Your task to perform on an android device: turn notification dots off Image 0: 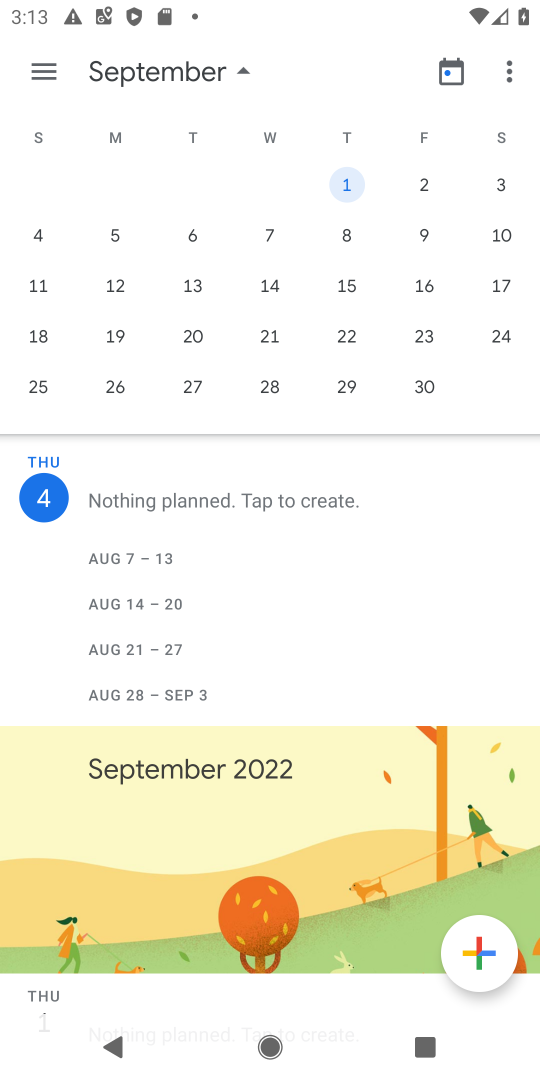
Step 0: press back button
Your task to perform on an android device: turn notification dots off Image 1: 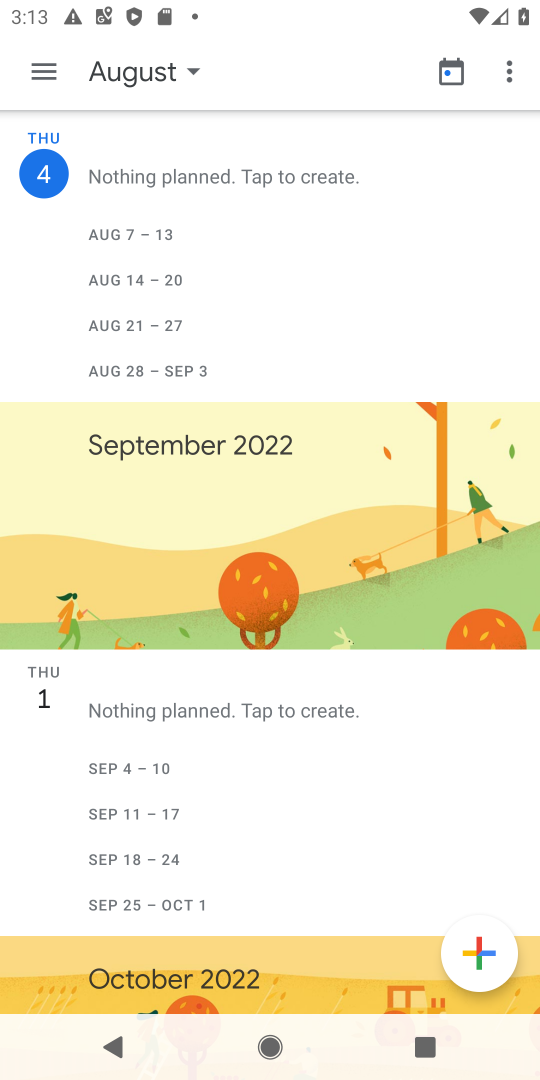
Step 1: press back button
Your task to perform on an android device: turn notification dots off Image 2: 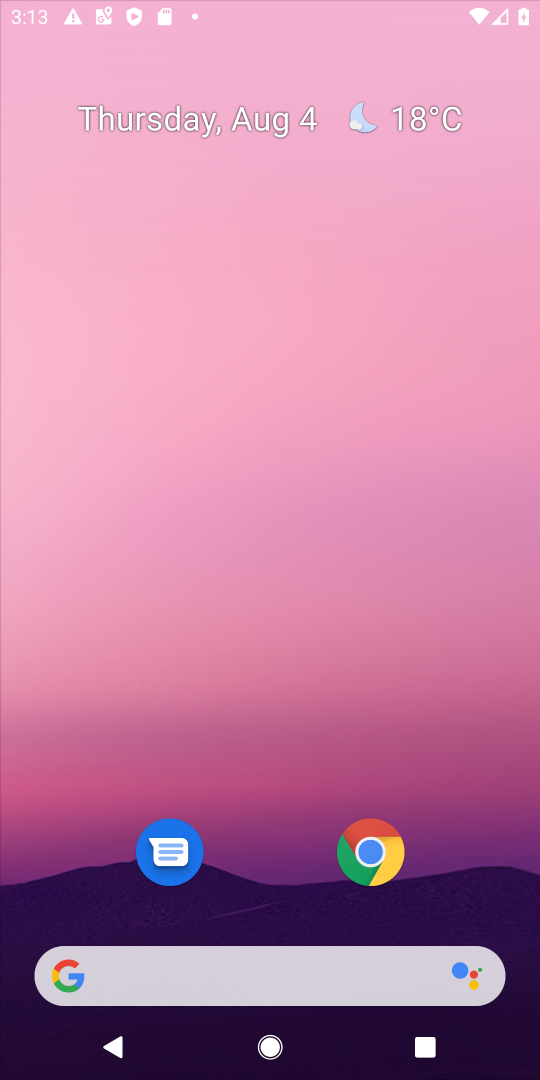
Step 2: press back button
Your task to perform on an android device: turn notification dots off Image 3: 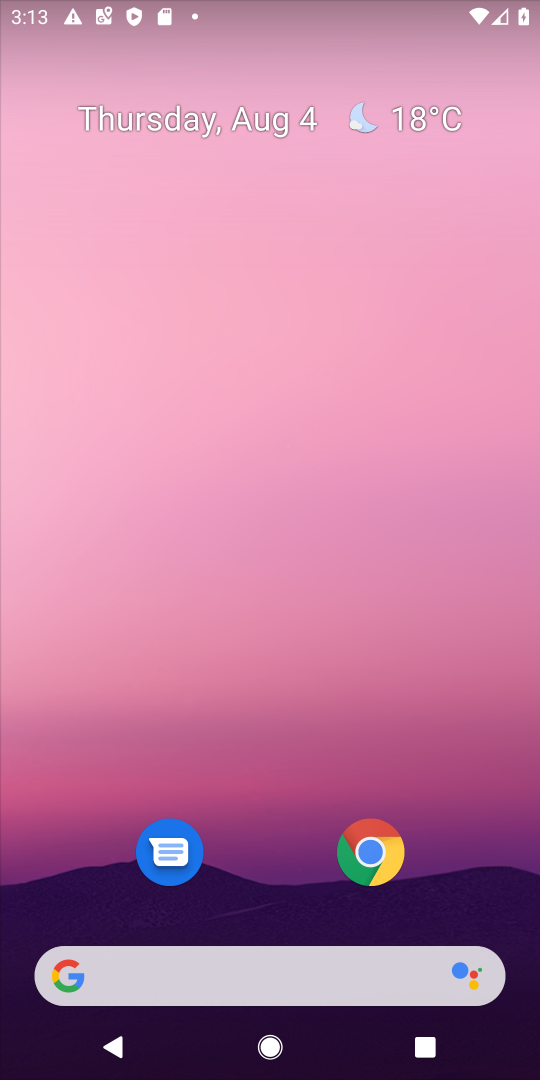
Step 3: drag from (279, 889) to (232, 7)
Your task to perform on an android device: turn notification dots off Image 4: 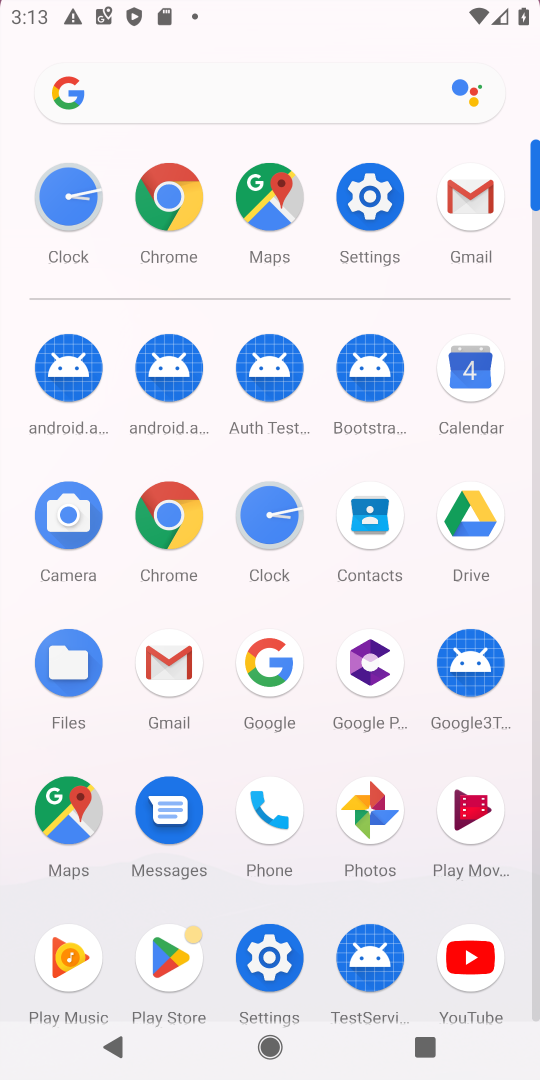
Step 4: click (373, 242)
Your task to perform on an android device: turn notification dots off Image 5: 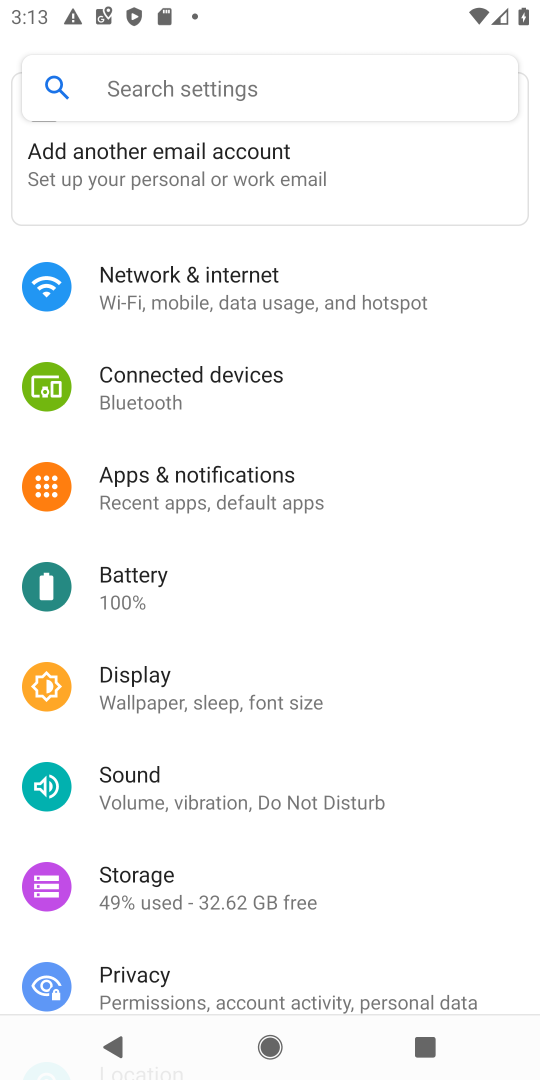
Step 5: click (215, 488)
Your task to perform on an android device: turn notification dots off Image 6: 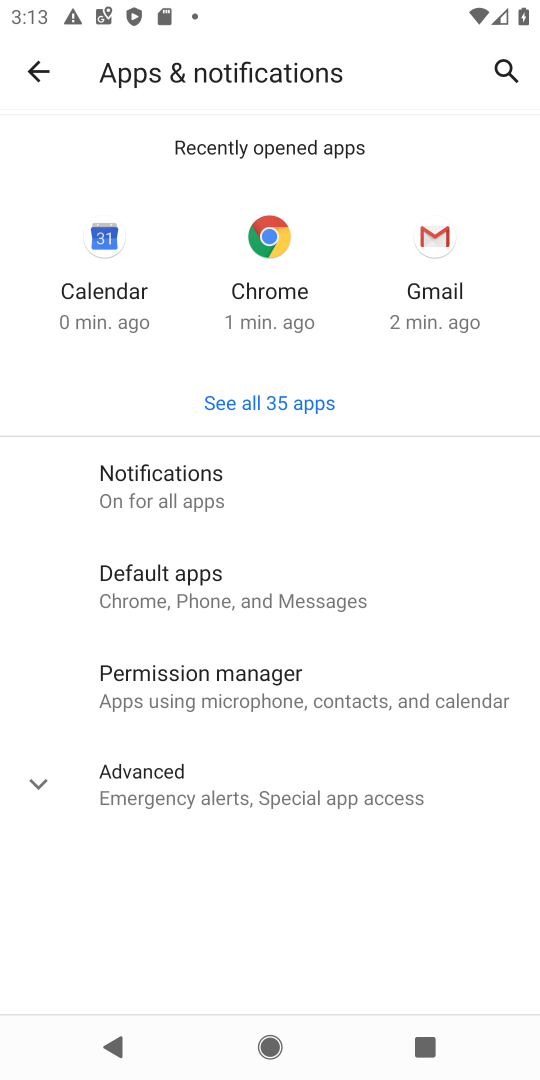
Step 6: click (219, 502)
Your task to perform on an android device: turn notification dots off Image 7: 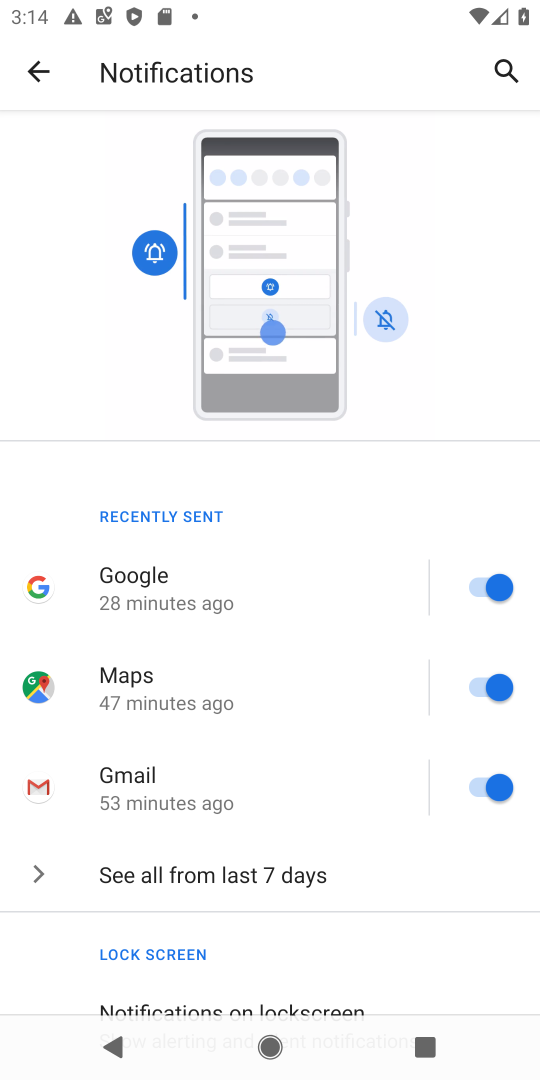
Step 7: drag from (291, 987) to (353, 226)
Your task to perform on an android device: turn notification dots off Image 8: 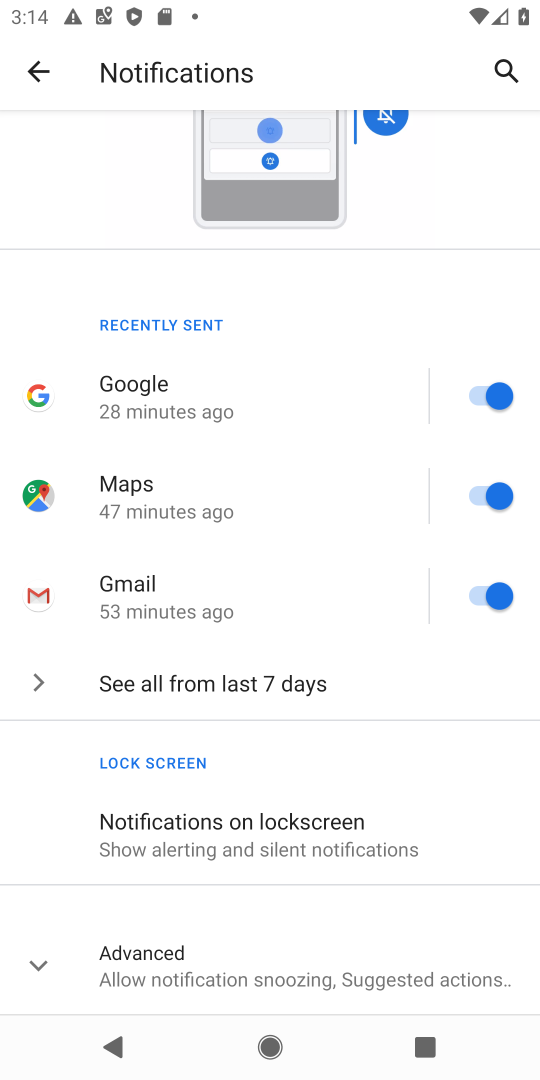
Step 8: click (273, 968)
Your task to perform on an android device: turn notification dots off Image 9: 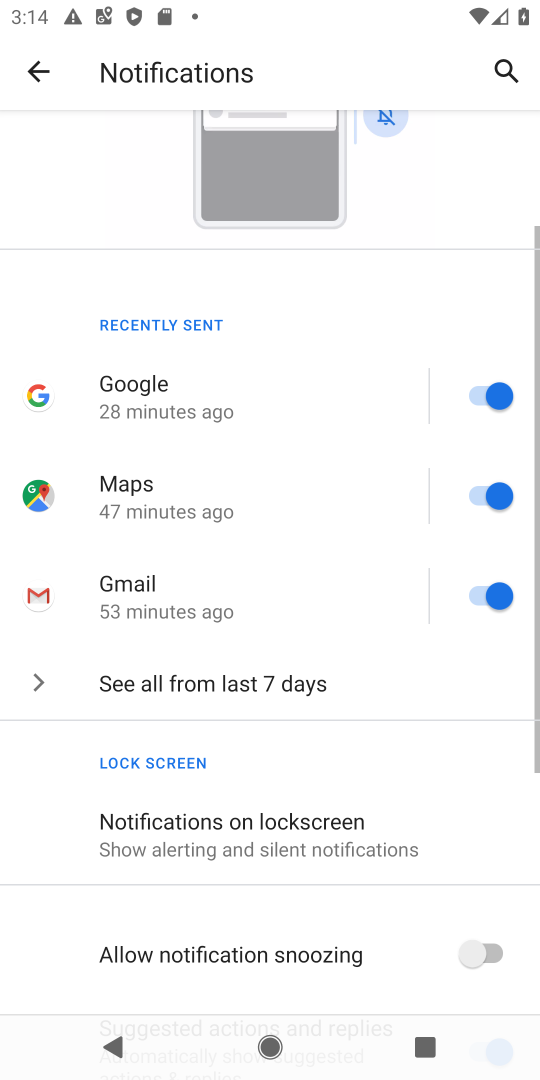
Step 9: drag from (250, 849) to (329, 33)
Your task to perform on an android device: turn notification dots off Image 10: 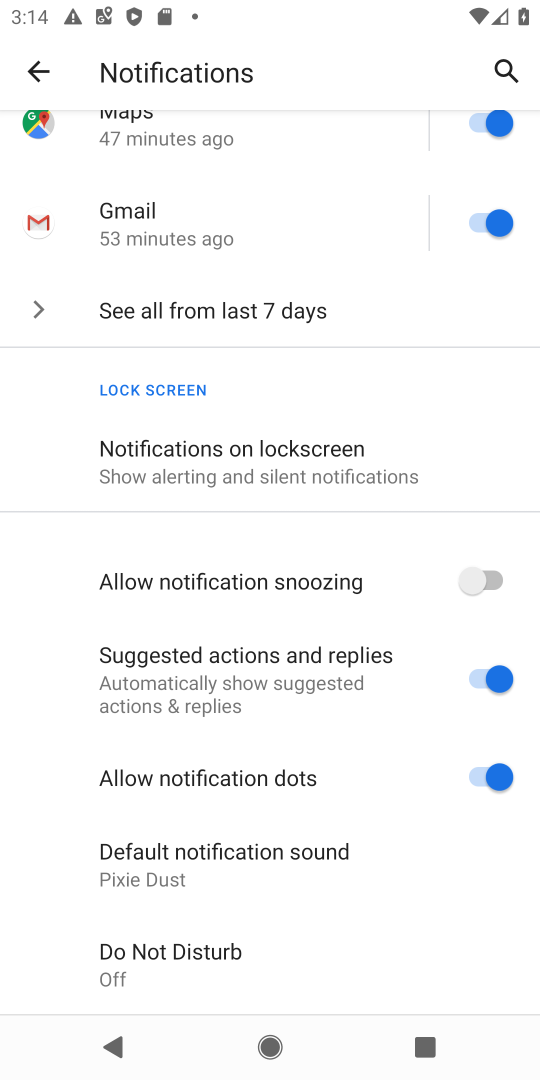
Step 10: click (488, 780)
Your task to perform on an android device: turn notification dots off Image 11: 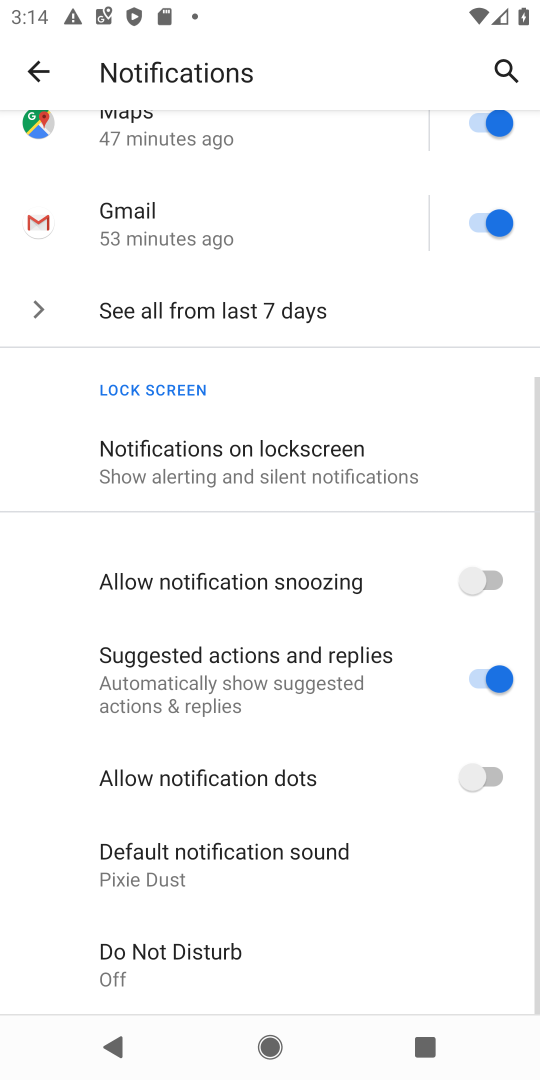
Step 11: task complete